Your task to perform on an android device: When is my next appointment? Image 0: 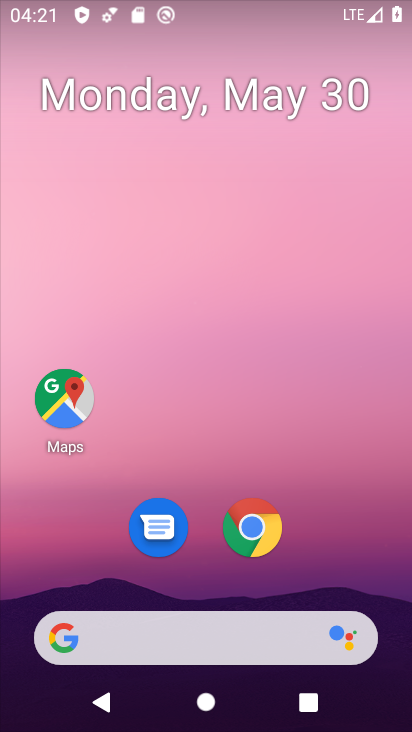
Step 0: drag from (231, 725) to (231, 669)
Your task to perform on an android device: When is my next appointment? Image 1: 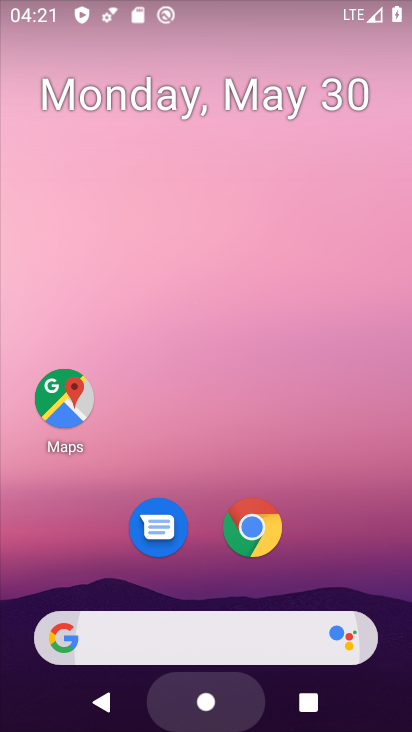
Step 1: drag from (229, 392) to (235, 160)
Your task to perform on an android device: When is my next appointment? Image 2: 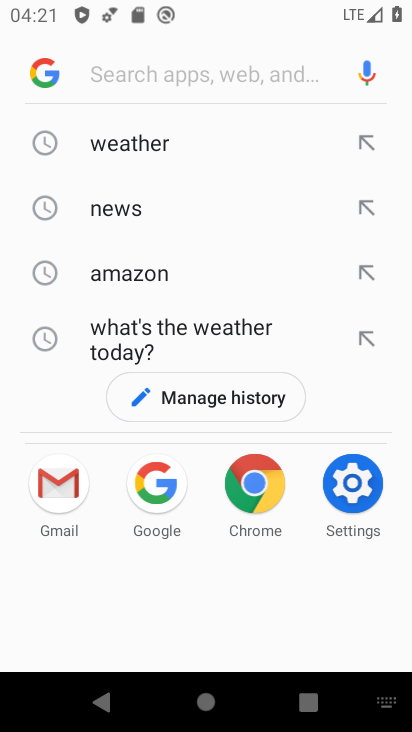
Step 2: press home button
Your task to perform on an android device: When is my next appointment? Image 3: 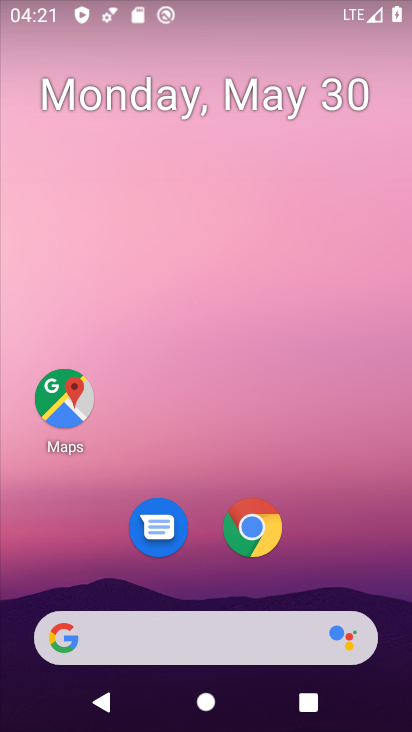
Step 3: drag from (228, 719) to (231, 55)
Your task to perform on an android device: When is my next appointment? Image 4: 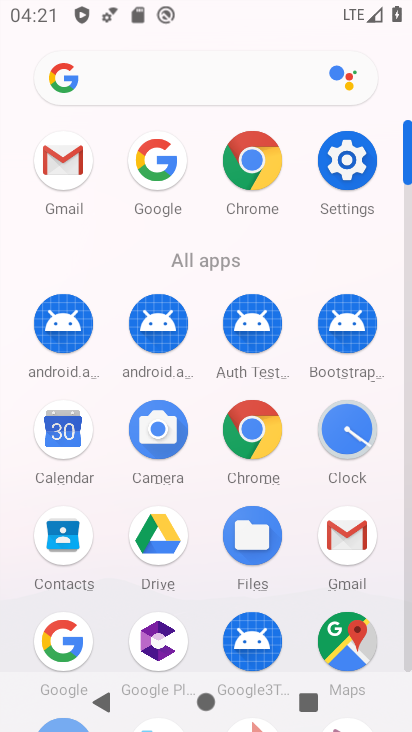
Step 4: click (67, 436)
Your task to perform on an android device: When is my next appointment? Image 5: 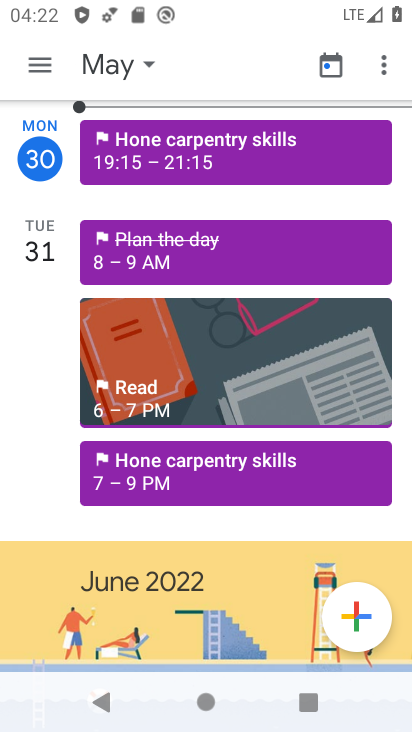
Step 5: click (129, 67)
Your task to perform on an android device: When is my next appointment? Image 6: 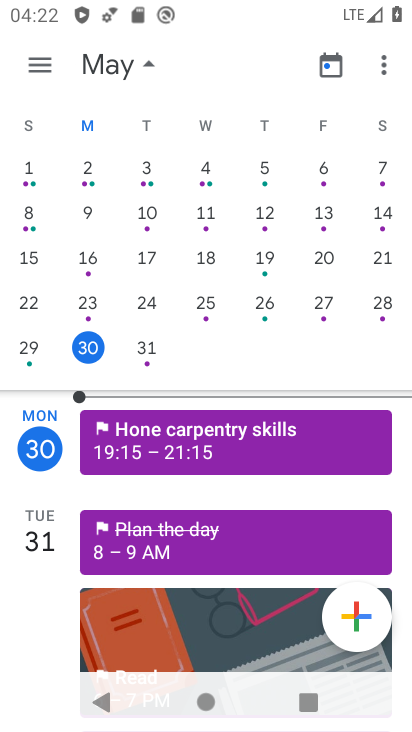
Step 6: click (149, 339)
Your task to perform on an android device: When is my next appointment? Image 7: 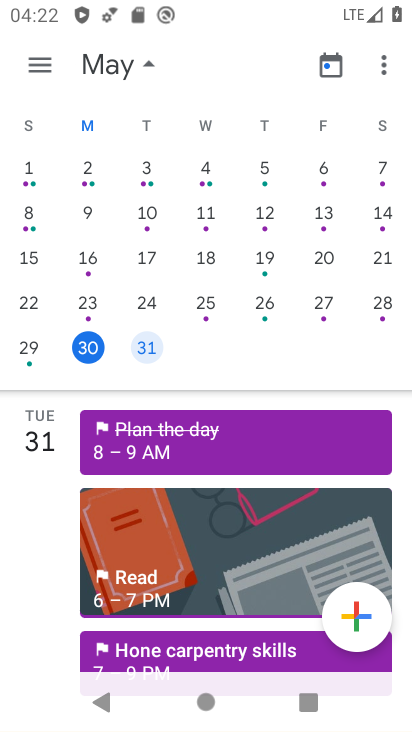
Step 7: click (144, 60)
Your task to perform on an android device: When is my next appointment? Image 8: 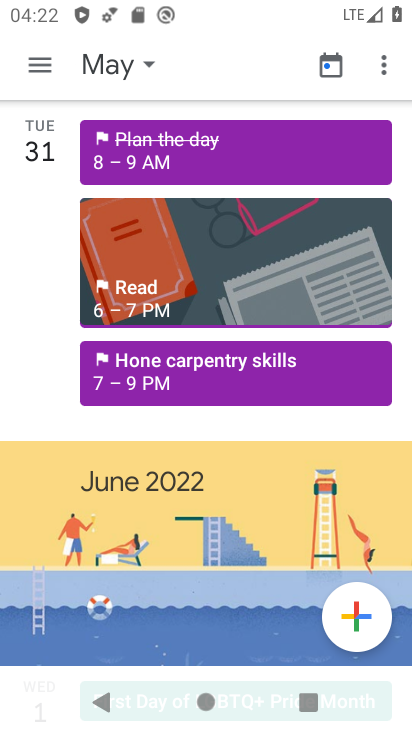
Step 8: task complete